Your task to perform on an android device: change alarm snooze length Image 0: 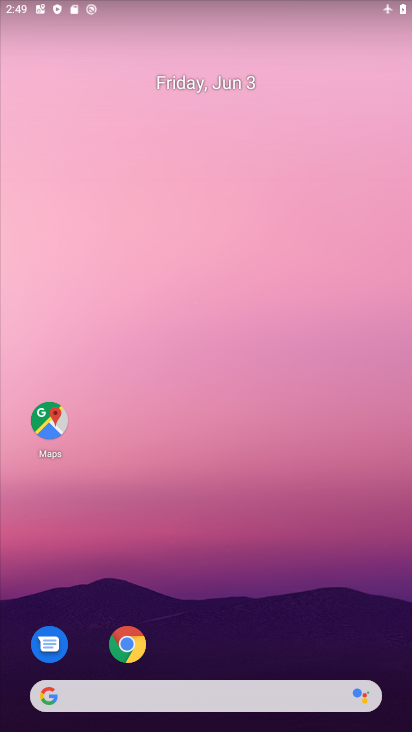
Step 0: drag from (209, 659) to (210, 318)
Your task to perform on an android device: change alarm snooze length Image 1: 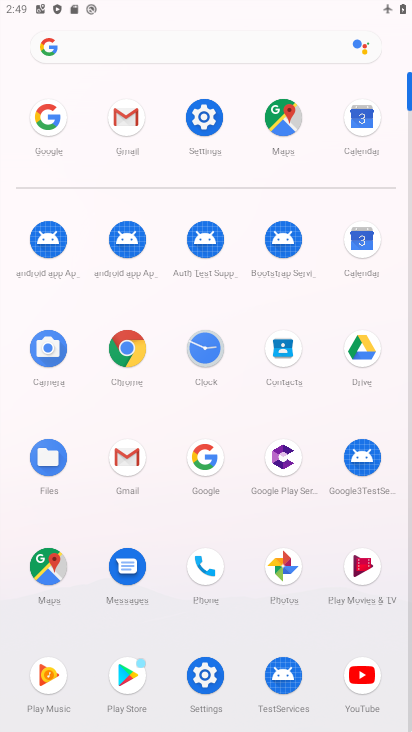
Step 1: click (207, 353)
Your task to perform on an android device: change alarm snooze length Image 2: 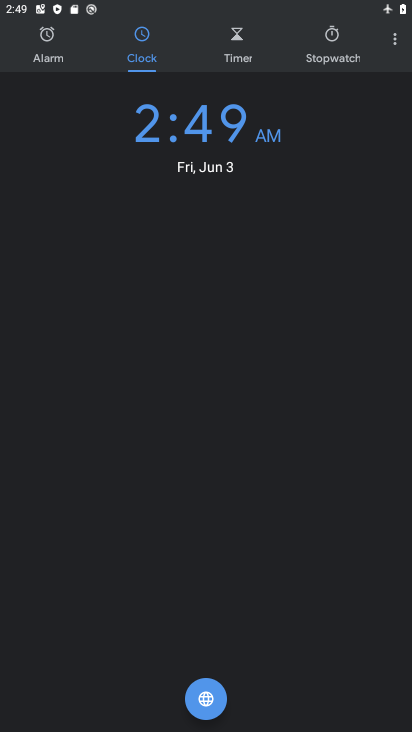
Step 2: click (387, 38)
Your task to perform on an android device: change alarm snooze length Image 3: 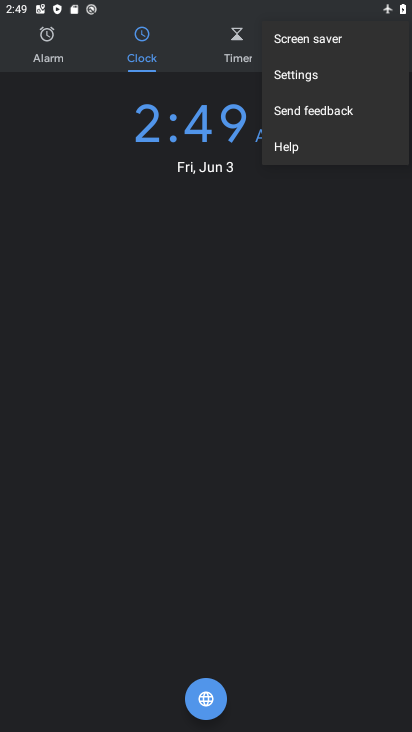
Step 3: click (308, 70)
Your task to perform on an android device: change alarm snooze length Image 4: 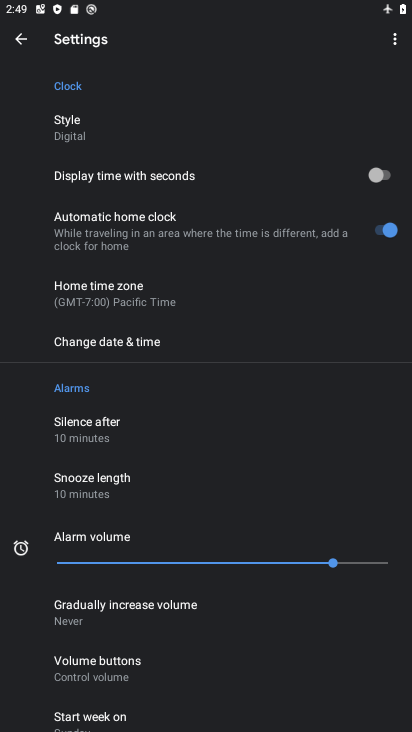
Step 4: drag from (203, 629) to (206, 537)
Your task to perform on an android device: change alarm snooze length Image 5: 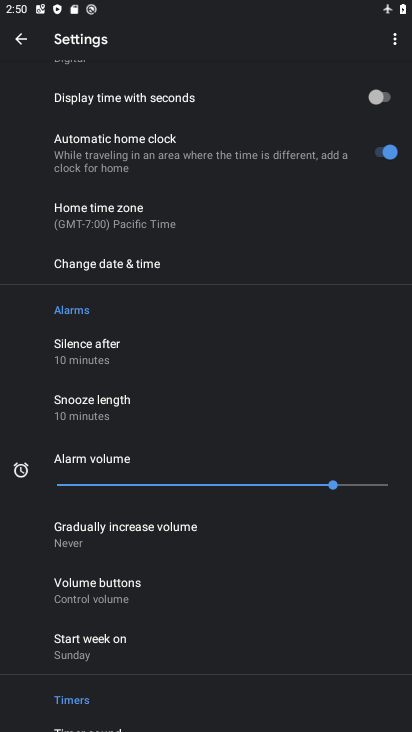
Step 5: click (140, 423)
Your task to perform on an android device: change alarm snooze length Image 6: 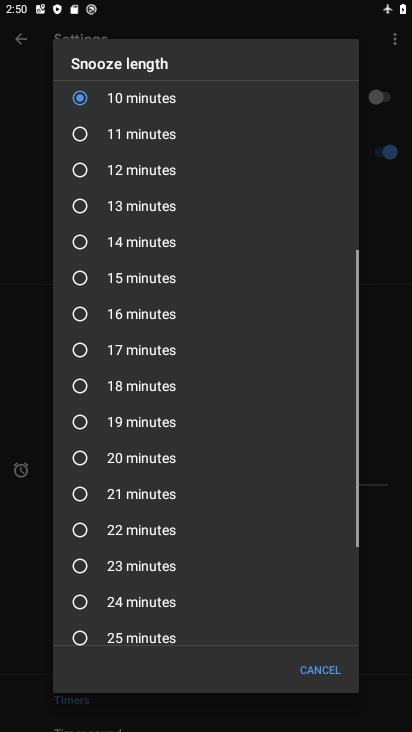
Step 6: click (150, 461)
Your task to perform on an android device: change alarm snooze length Image 7: 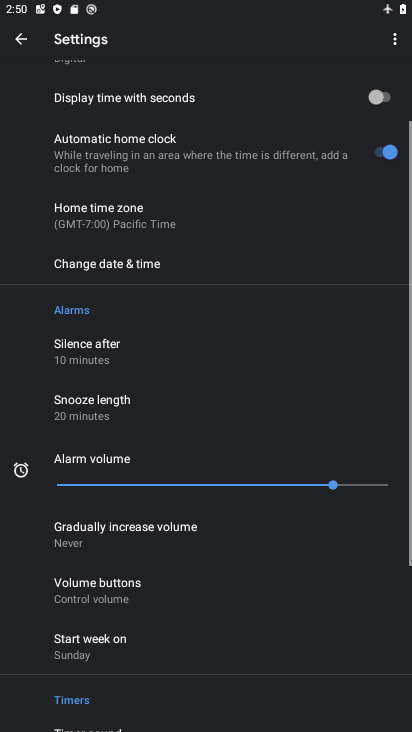
Step 7: task complete